Your task to perform on an android device: change text size in settings app Image 0: 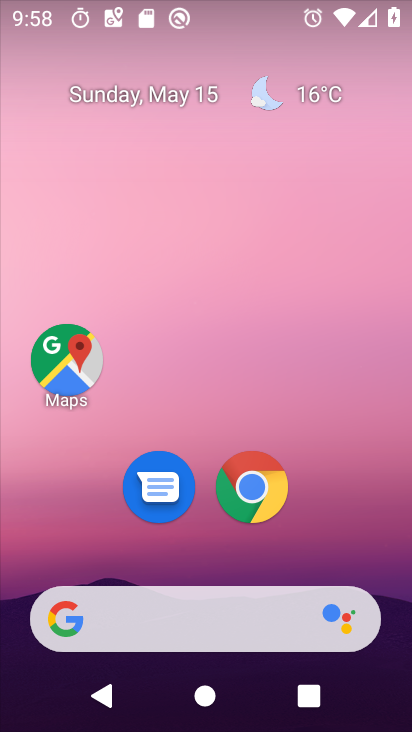
Step 0: drag from (350, 510) to (359, 142)
Your task to perform on an android device: change text size in settings app Image 1: 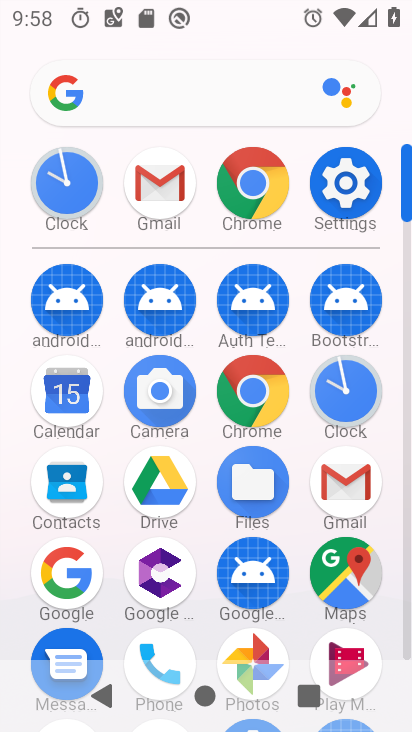
Step 1: click (358, 206)
Your task to perform on an android device: change text size in settings app Image 2: 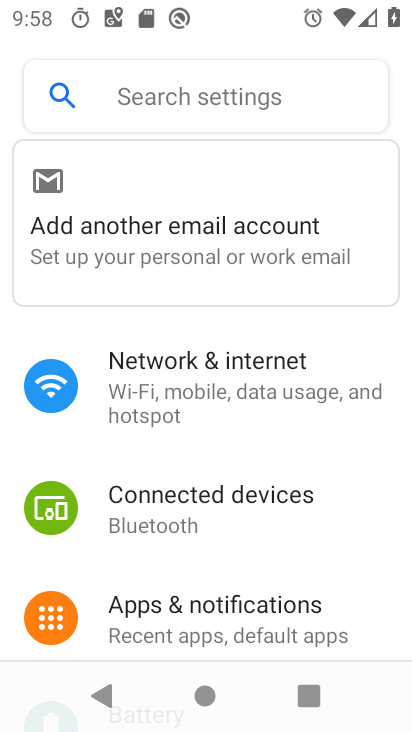
Step 2: drag from (327, 379) to (331, 302)
Your task to perform on an android device: change text size in settings app Image 3: 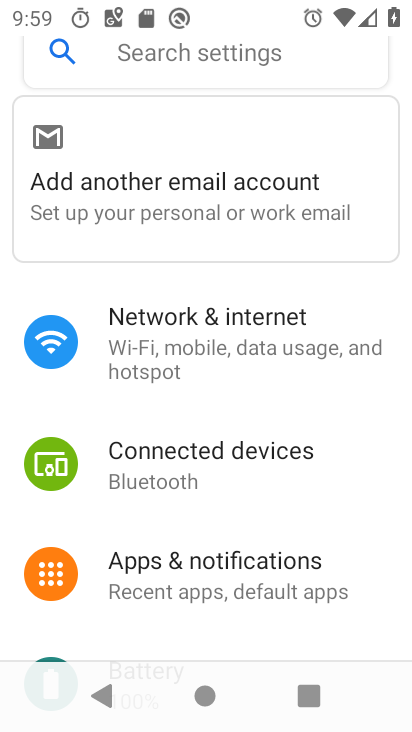
Step 3: drag from (247, 528) to (279, 247)
Your task to perform on an android device: change text size in settings app Image 4: 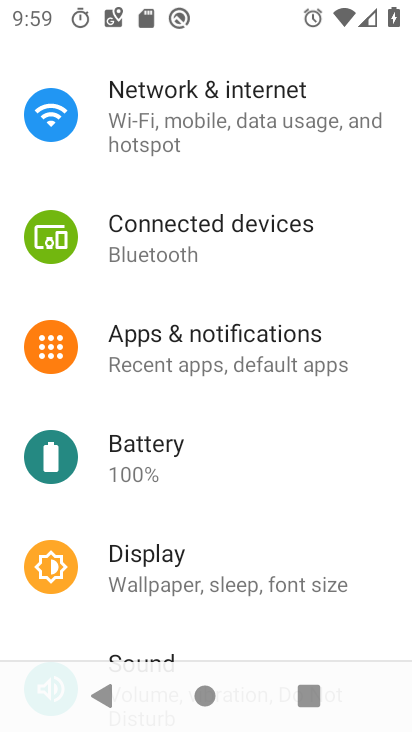
Step 4: click (148, 578)
Your task to perform on an android device: change text size in settings app Image 5: 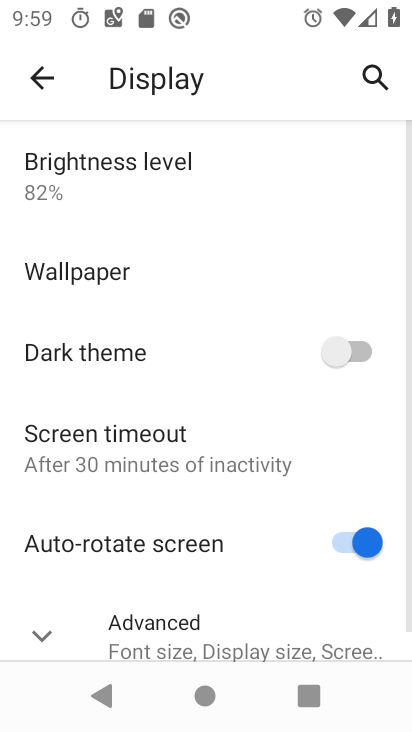
Step 5: drag from (277, 588) to (313, 247)
Your task to perform on an android device: change text size in settings app Image 6: 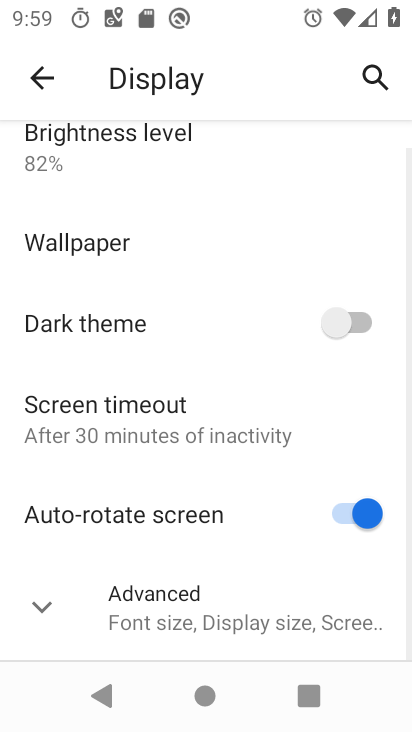
Step 6: click (162, 632)
Your task to perform on an android device: change text size in settings app Image 7: 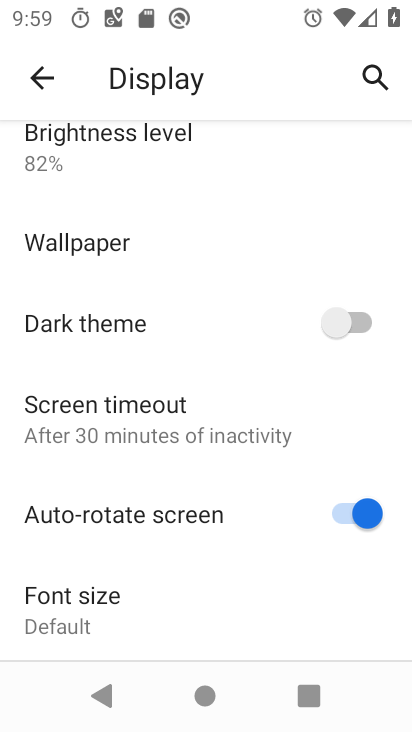
Step 7: click (166, 604)
Your task to perform on an android device: change text size in settings app Image 8: 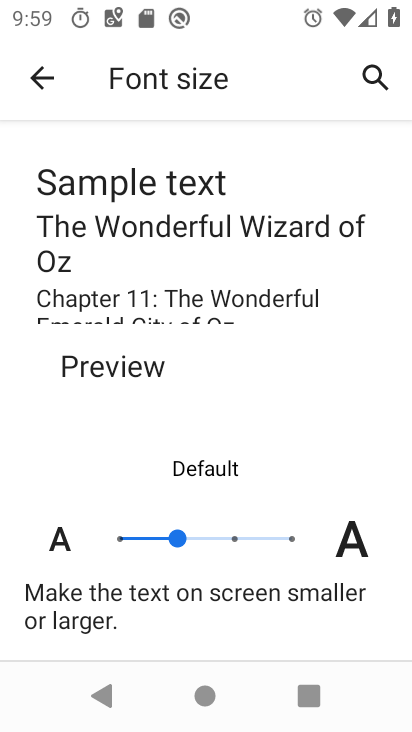
Step 8: click (117, 537)
Your task to perform on an android device: change text size in settings app Image 9: 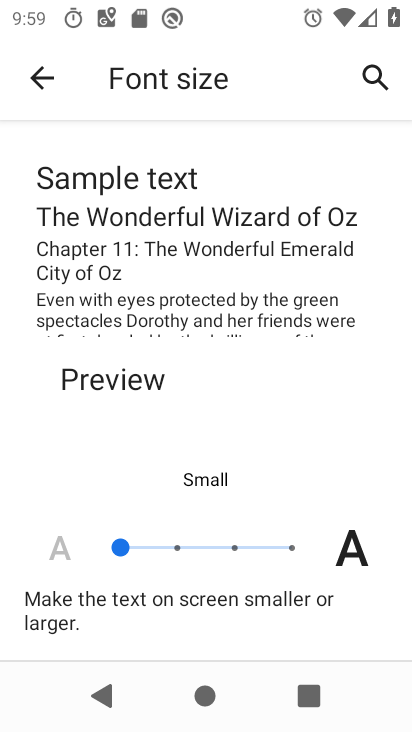
Step 9: task complete